Your task to perform on an android device: Open CNN.com Image 0: 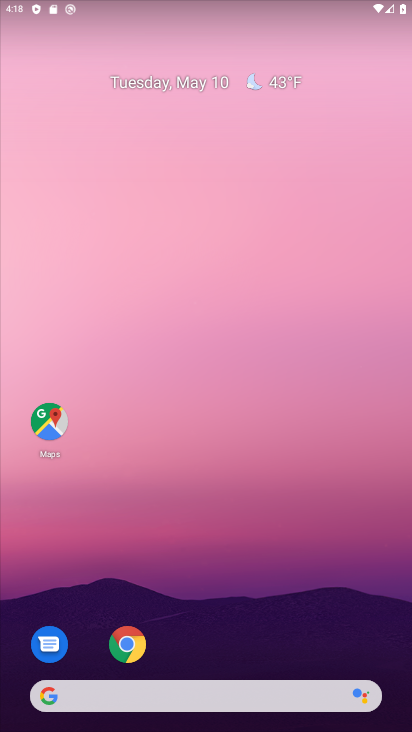
Step 0: click (121, 651)
Your task to perform on an android device: Open CNN.com Image 1: 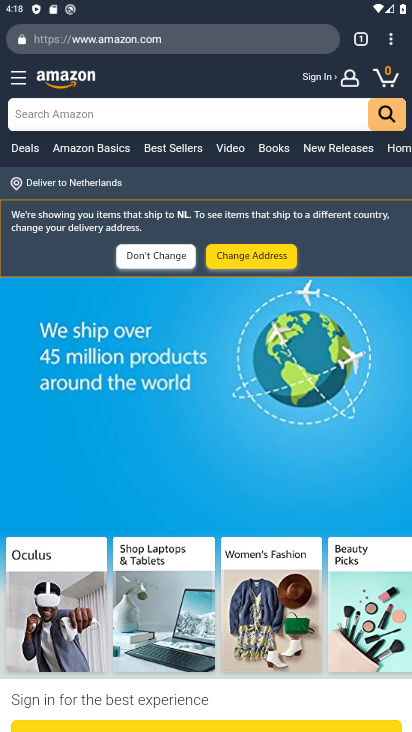
Step 1: click (371, 41)
Your task to perform on an android device: Open CNN.com Image 2: 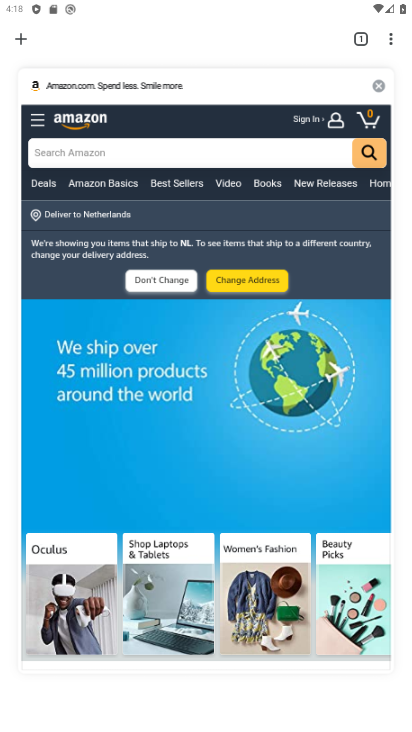
Step 2: click (26, 38)
Your task to perform on an android device: Open CNN.com Image 3: 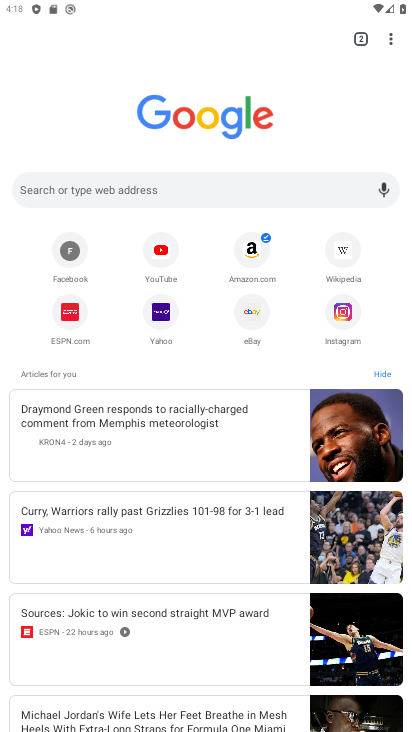
Step 3: type "CNN.com"
Your task to perform on an android device: Open CNN.com Image 4: 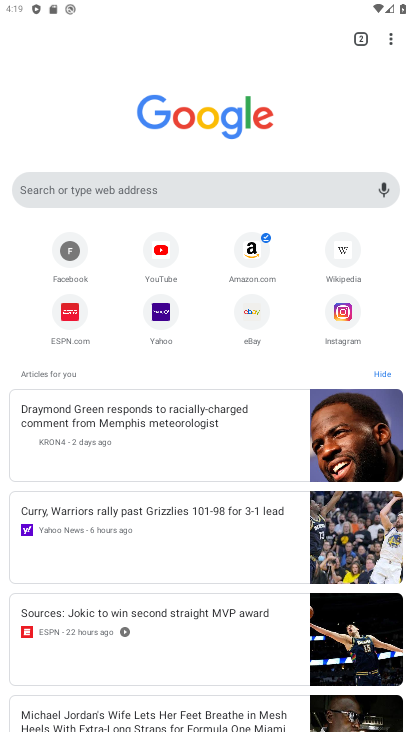
Step 4: click (142, 182)
Your task to perform on an android device: Open CNN.com Image 5: 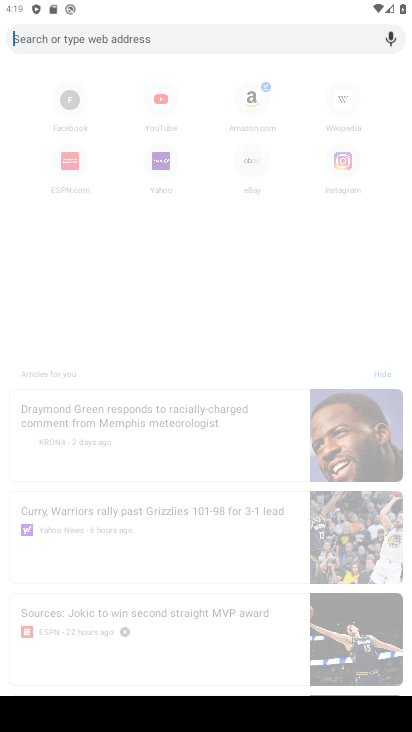
Step 5: type "CNN.com"
Your task to perform on an android device: Open CNN.com Image 6: 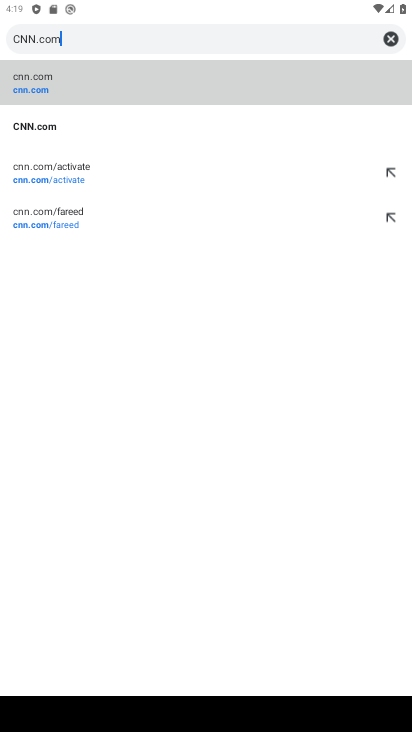
Step 6: click (49, 130)
Your task to perform on an android device: Open CNN.com Image 7: 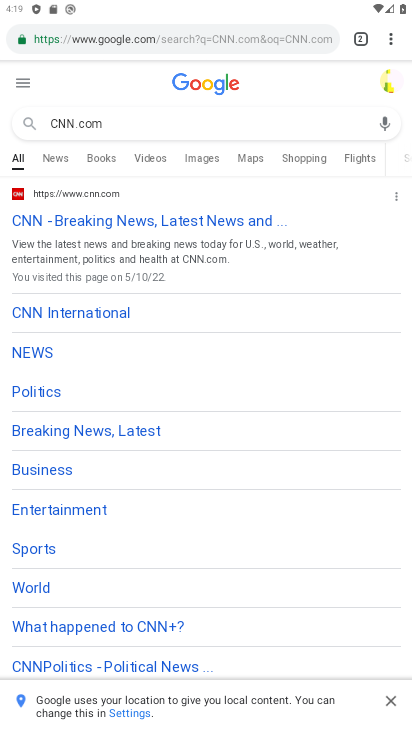
Step 7: click (82, 226)
Your task to perform on an android device: Open CNN.com Image 8: 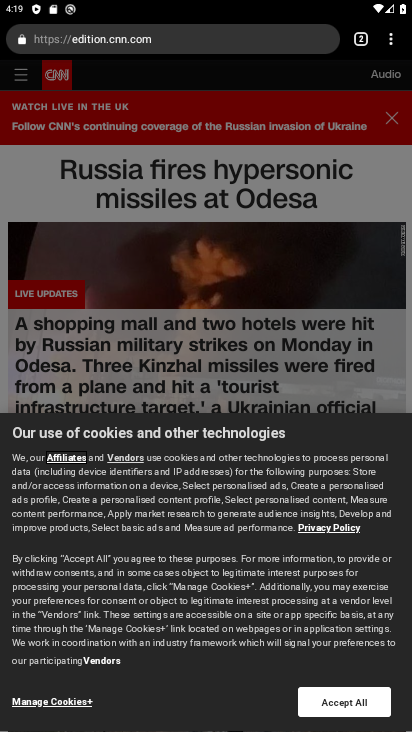
Step 8: task complete